Your task to perform on an android device: Open the calendar and show me this week's events Image 0: 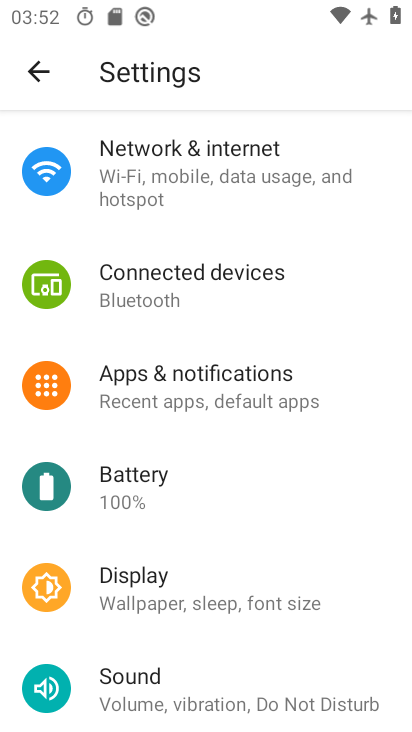
Step 0: press home button
Your task to perform on an android device: Open the calendar and show me this week's events Image 1: 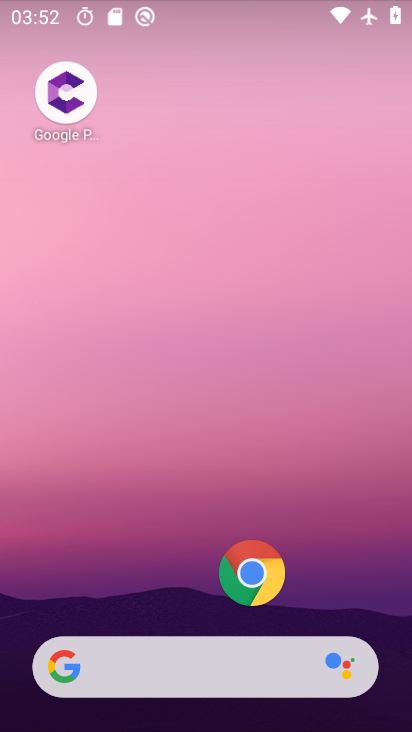
Step 1: drag from (176, 605) to (169, 206)
Your task to perform on an android device: Open the calendar and show me this week's events Image 2: 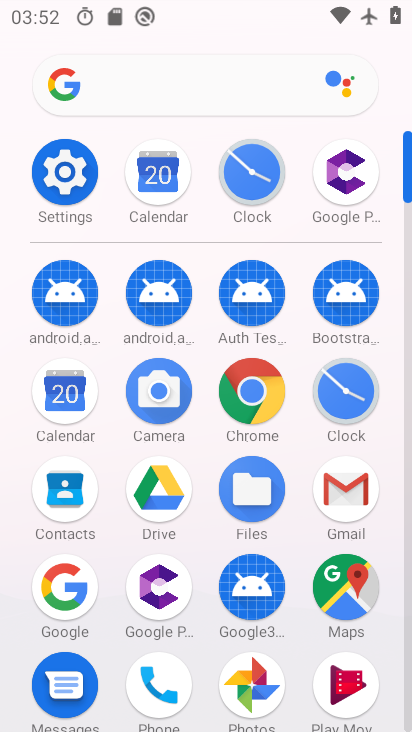
Step 2: click (62, 399)
Your task to perform on an android device: Open the calendar and show me this week's events Image 3: 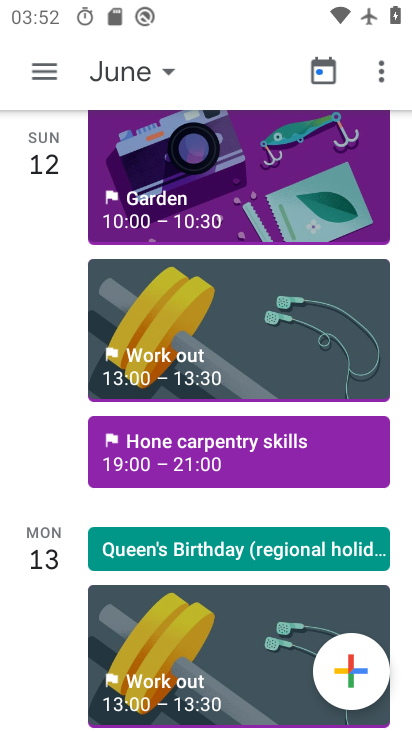
Step 3: click (163, 71)
Your task to perform on an android device: Open the calendar and show me this week's events Image 4: 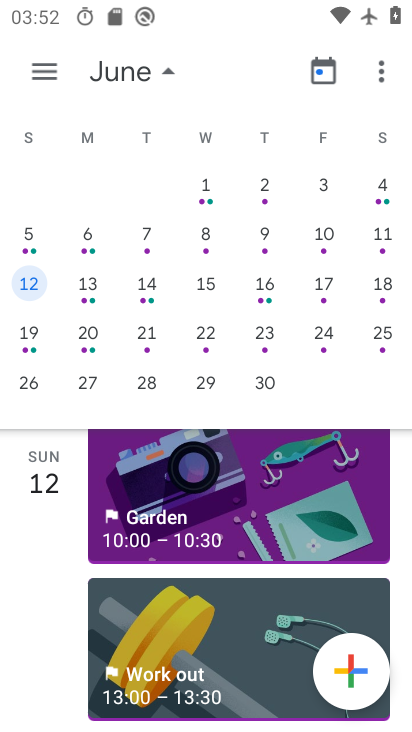
Step 4: task complete